Your task to perform on an android device: Open Amazon Image 0: 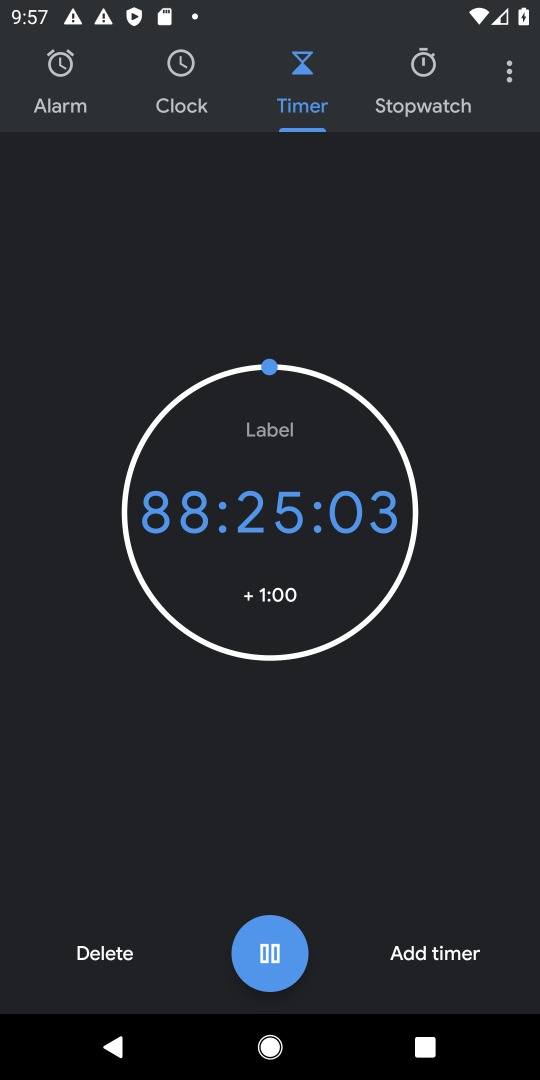
Step 0: press home button
Your task to perform on an android device: Open Amazon Image 1: 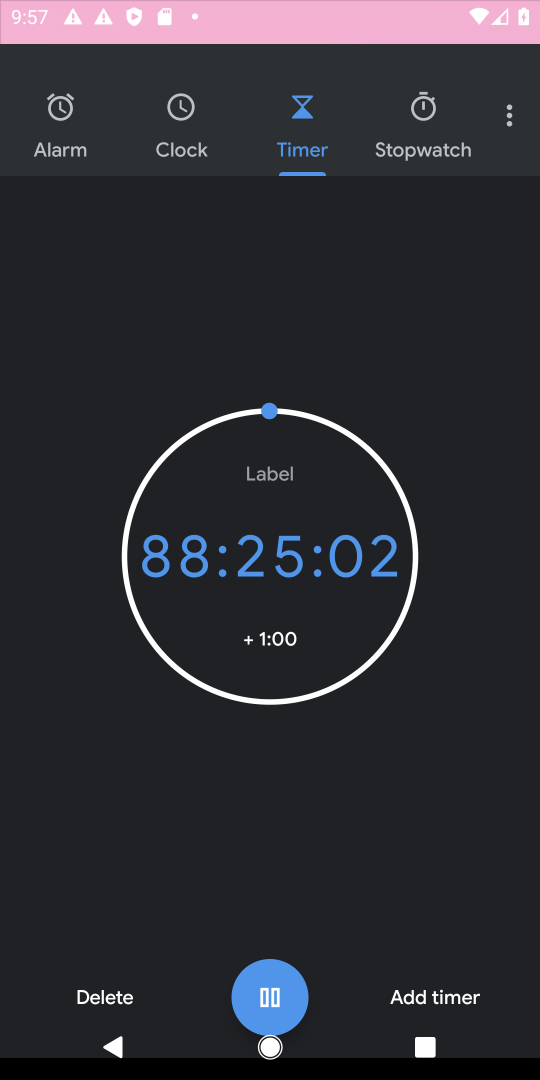
Step 1: drag from (271, 904) to (326, 286)
Your task to perform on an android device: Open Amazon Image 2: 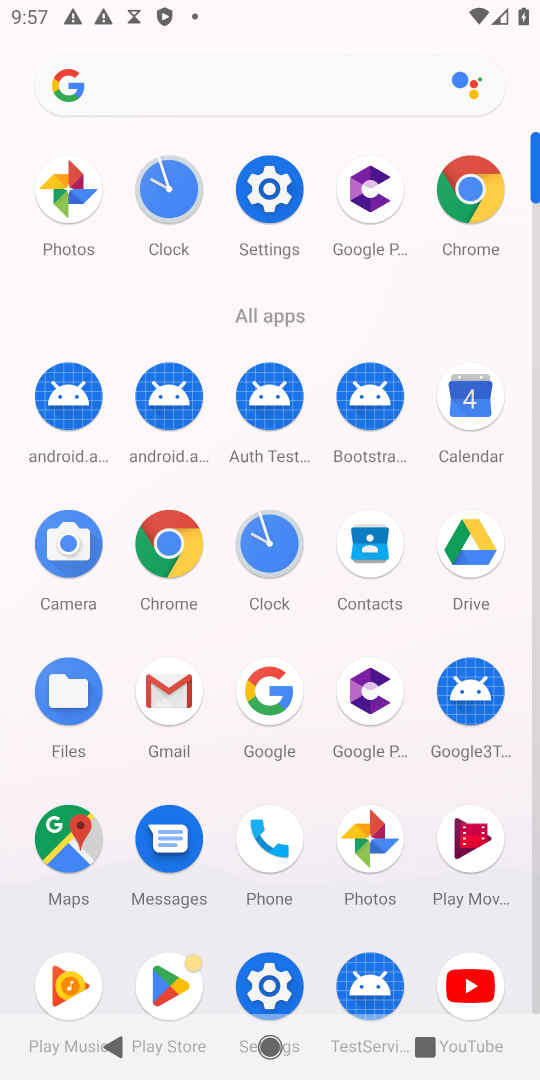
Step 2: click (460, 206)
Your task to perform on an android device: Open Amazon Image 3: 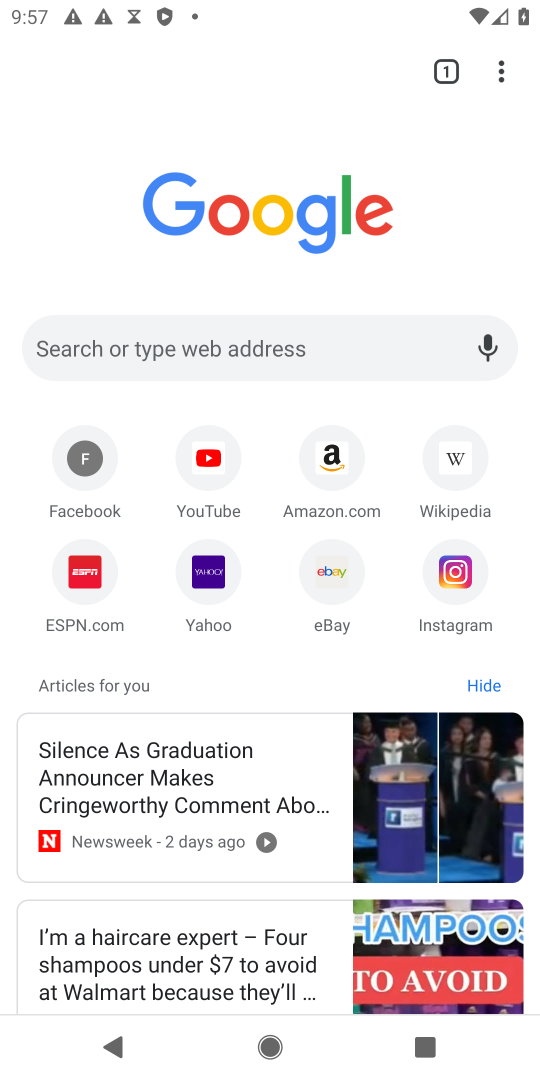
Step 3: click (328, 460)
Your task to perform on an android device: Open Amazon Image 4: 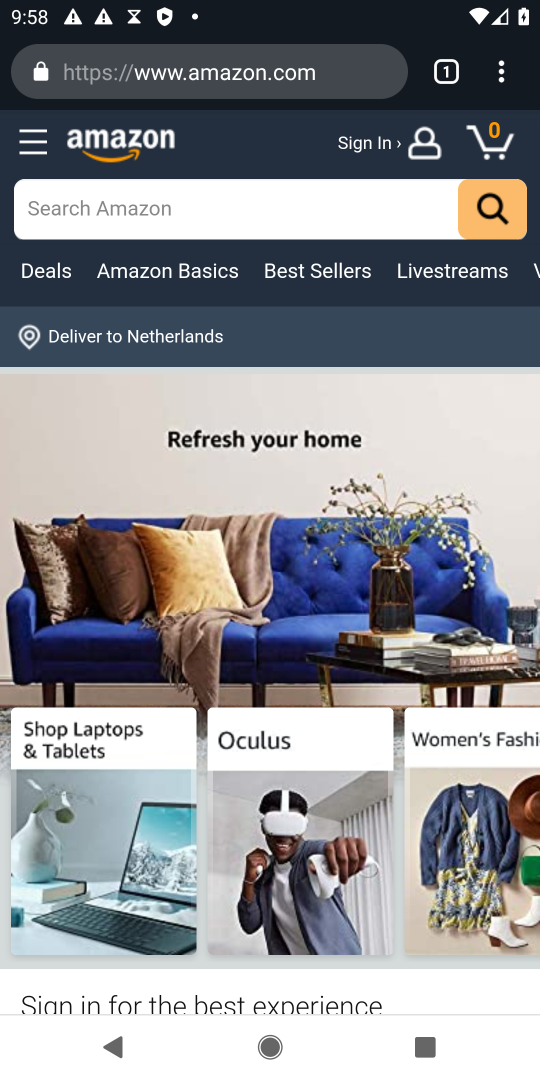
Step 4: task complete